Your task to perform on an android device: Go to privacy settings Image 0: 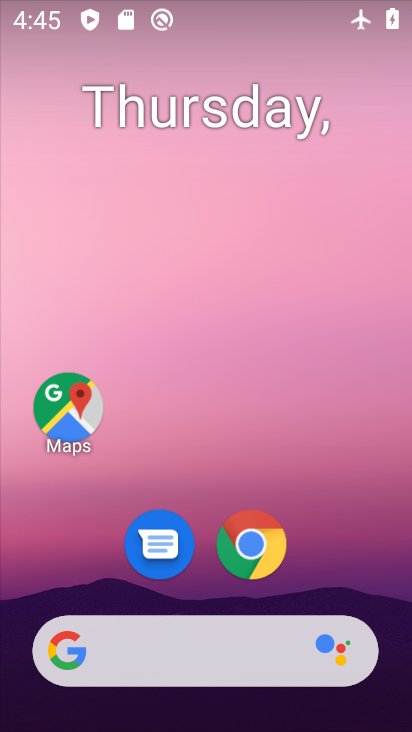
Step 0: drag from (348, 502) to (297, 142)
Your task to perform on an android device: Go to privacy settings Image 1: 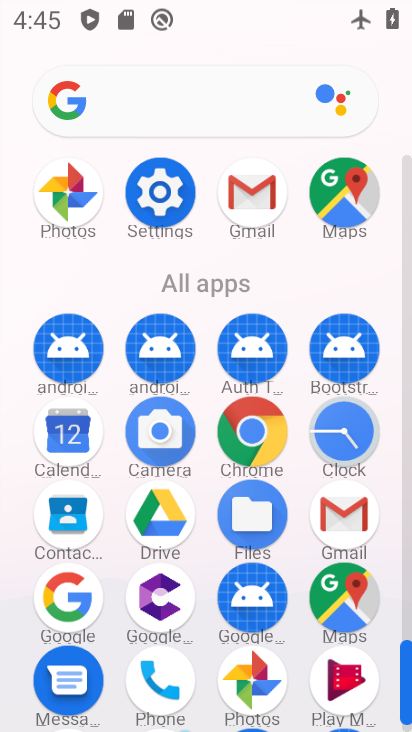
Step 1: click (167, 216)
Your task to perform on an android device: Go to privacy settings Image 2: 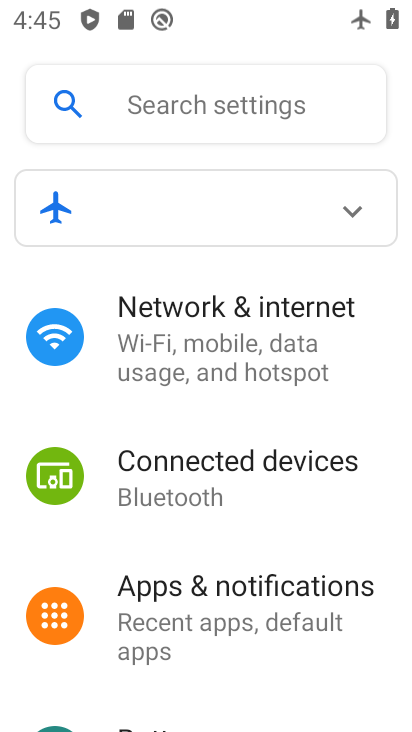
Step 2: drag from (227, 529) to (288, 285)
Your task to perform on an android device: Go to privacy settings Image 3: 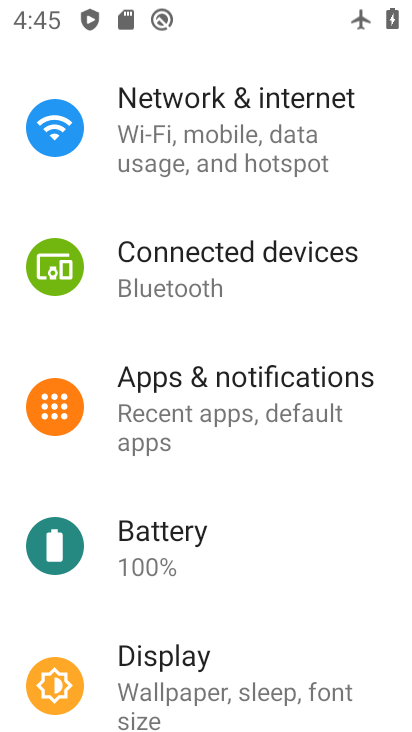
Step 3: drag from (205, 460) to (255, 245)
Your task to perform on an android device: Go to privacy settings Image 4: 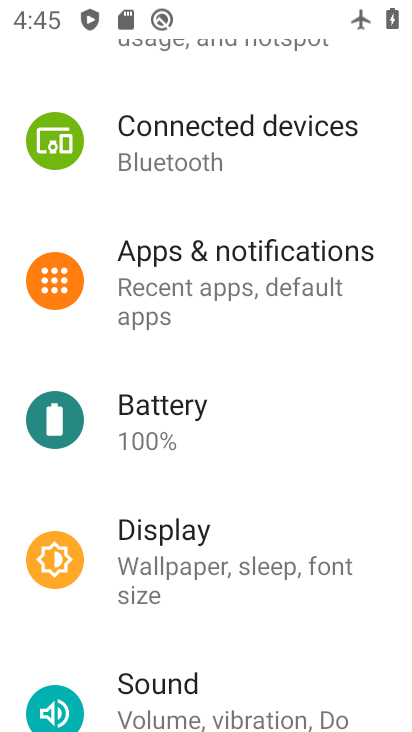
Step 4: drag from (201, 634) to (247, 286)
Your task to perform on an android device: Go to privacy settings Image 5: 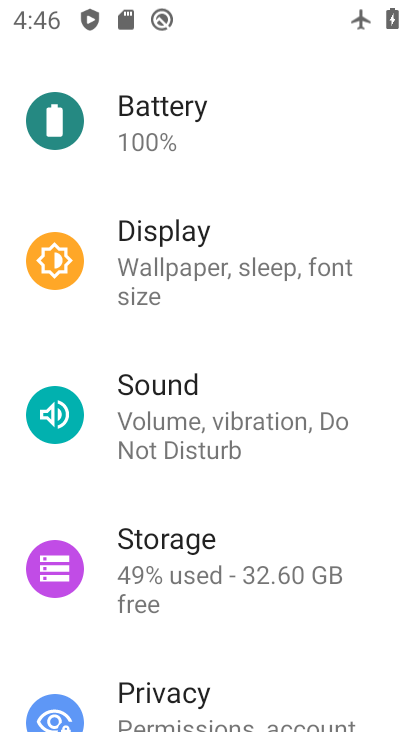
Step 5: drag from (189, 633) to (238, 244)
Your task to perform on an android device: Go to privacy settings Image 6: 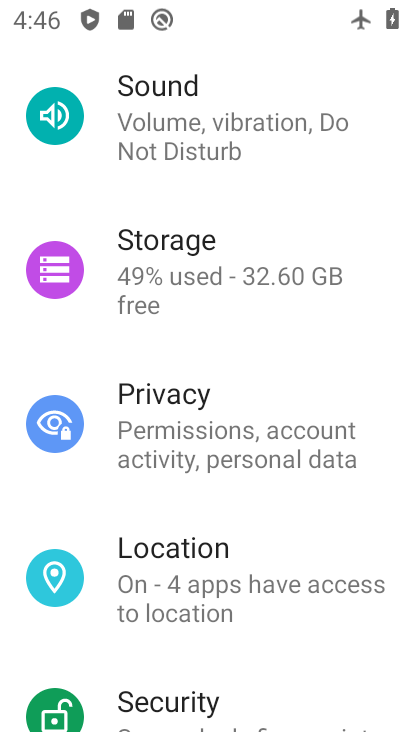
Step 6: click (177, 420)
Your task to perform on an android device: Go to privacy settings Image 7: 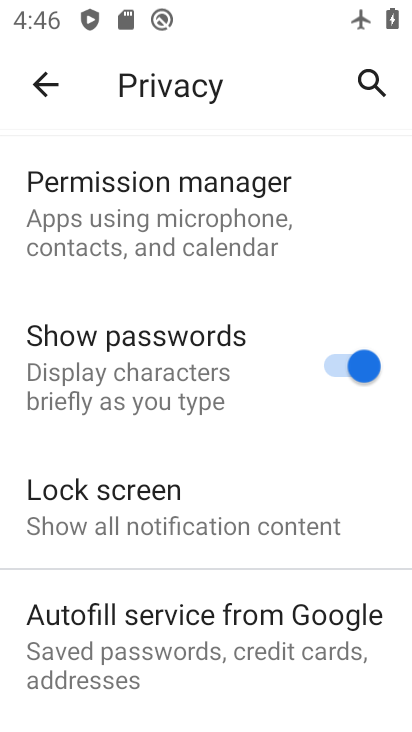
Step 7: task complete